Your task to perform on an android device: Go to Android settings Image 0: 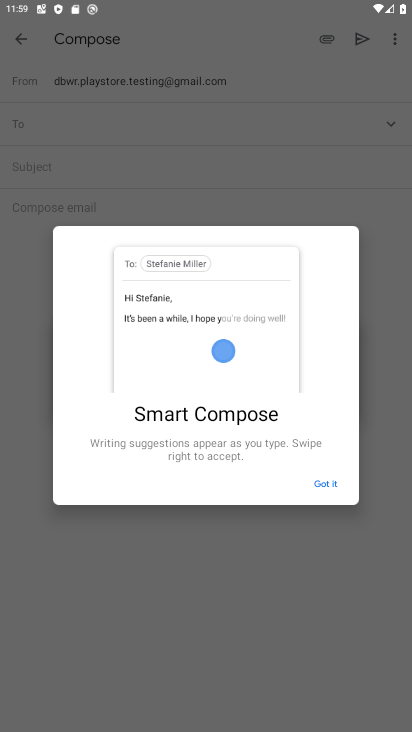
Step 0: press home button
Your task to perform on an android device: Go to Android settings Image 1: 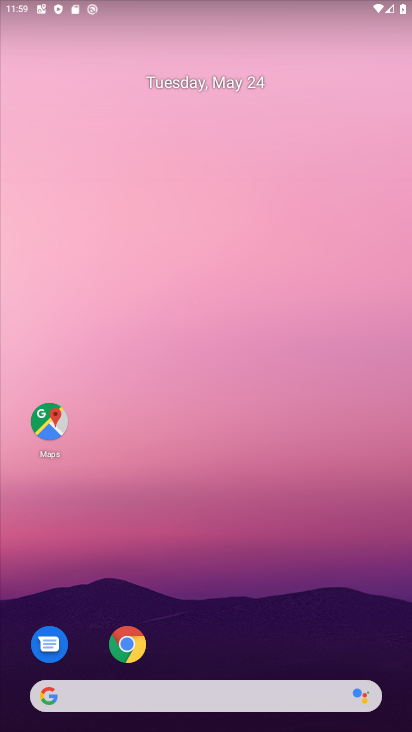
Step 1: drag from (174, 668) to (284, 192)
Your task to perform on an android device: Go to Android settings Image 2: 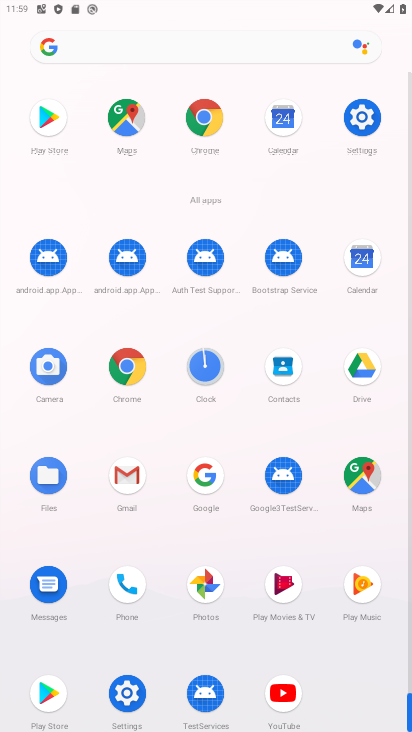
Step 2: drag from (169, 618) to (201, 481)
Your task to perform on an android device: Go to Android settings Image 3: 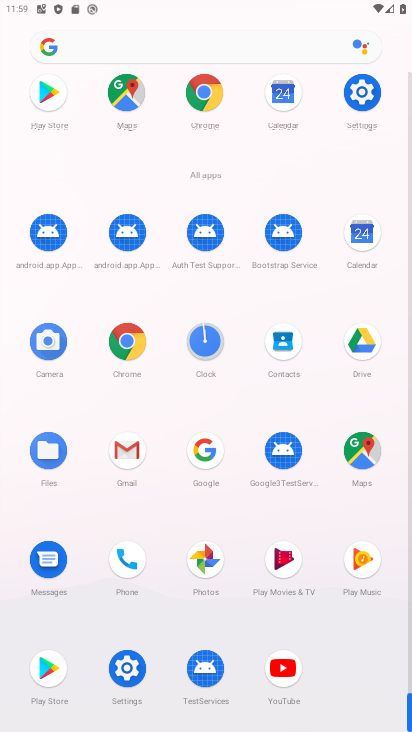
Step 3: click (122, 669)
Your task to perform on an android device: Go to Android settings Image 4: 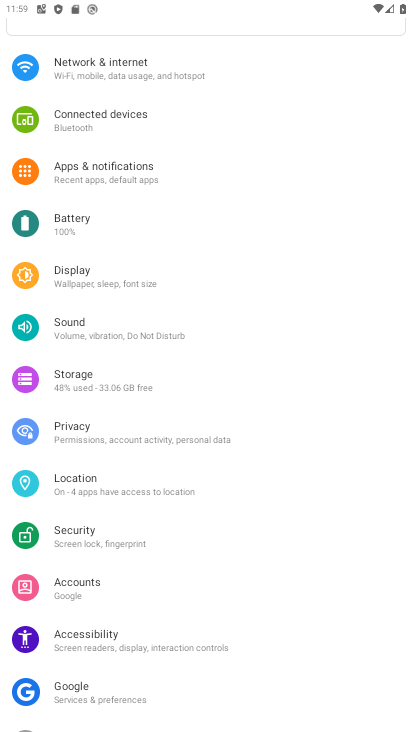
Step 4: task complete